Your task to perform on an android device: toggle translation in the chrome app Image 0: 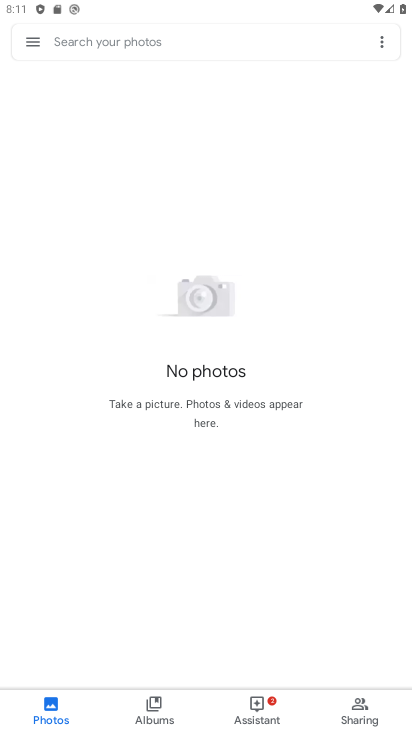
Step 0: press home button
Your task to perform on an android device: toggle translation in the chrome app Image 1: 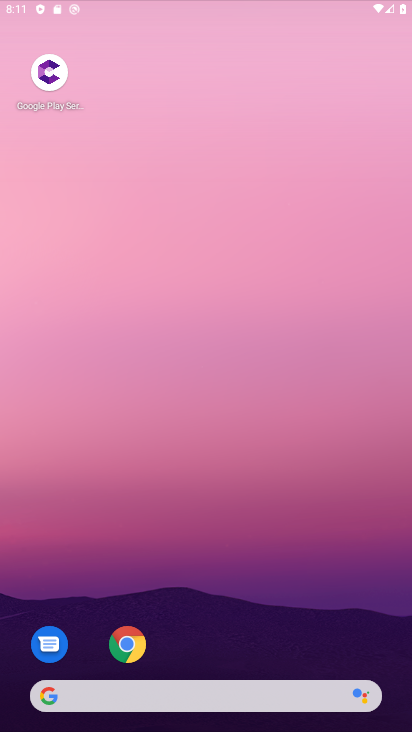
Step 1: drag from (204, 490) to (204, 219)
Your task to perform on an android device: toggle translation in the chrome app Image 2: 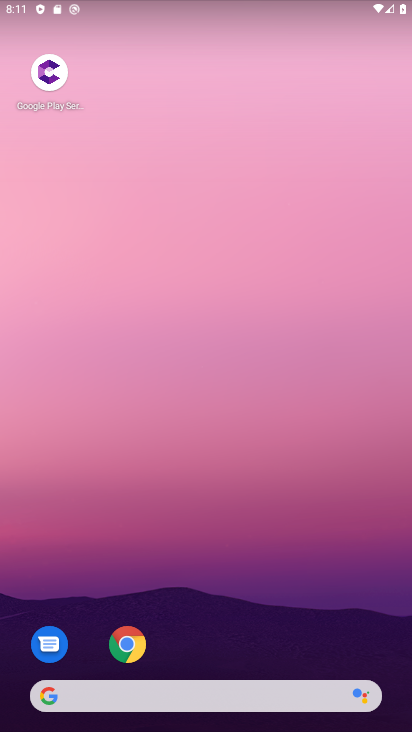
Step 2: click (132, 644)
Your task to perform on an android device: toggle translation in the chrome app Image 3: 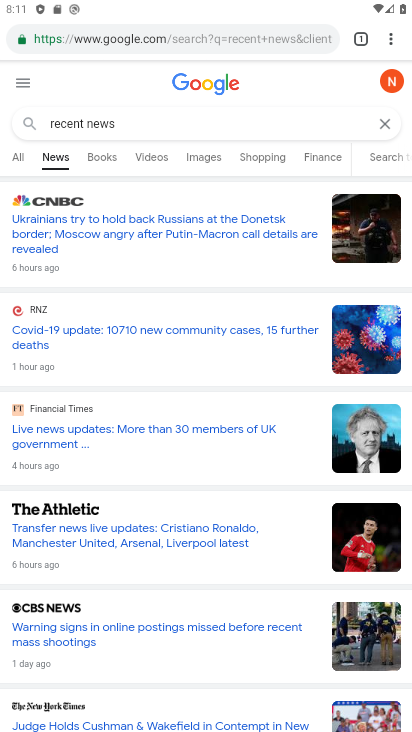
Step 3: click (387, 38)
Your task to perform on an android device: toggle translation in the chrome app Image 4: 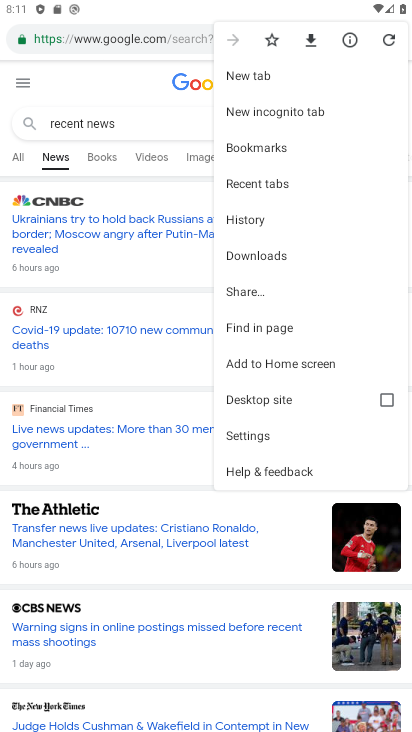
Step 4: click (275, 436)
Your task to perform on an android device: toggle translation in the chrome app Image 5: 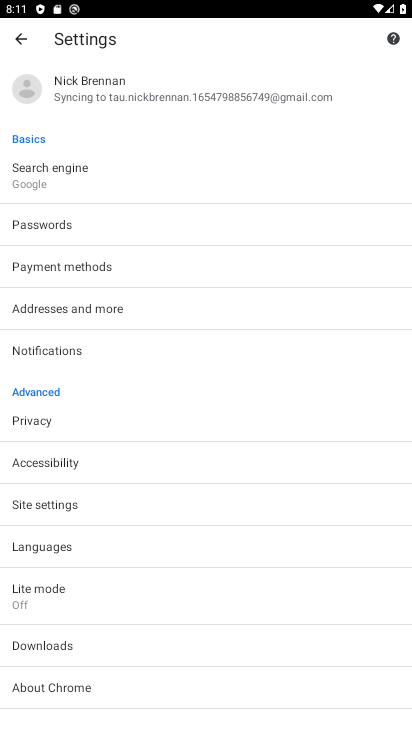
Step 5: drag from (149, 606) to (190, 218)
Your task to perform on an android device: toggle translation in the chrome app Image 6: 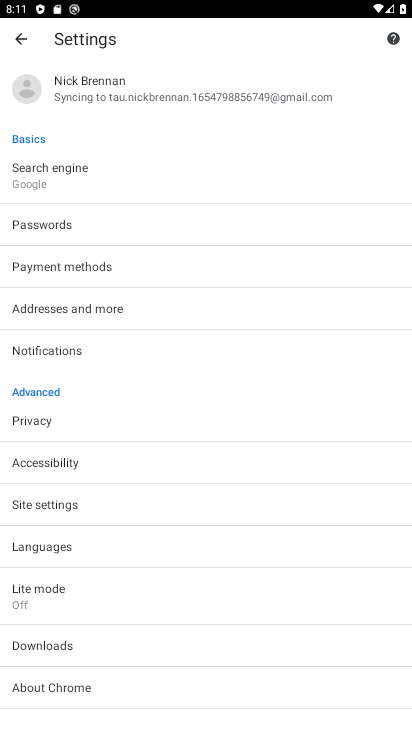
Step 6: drag from (145, 627) to (173, 264)
Your task to perform on an android device: toggle translation in the chrome app Image 7: 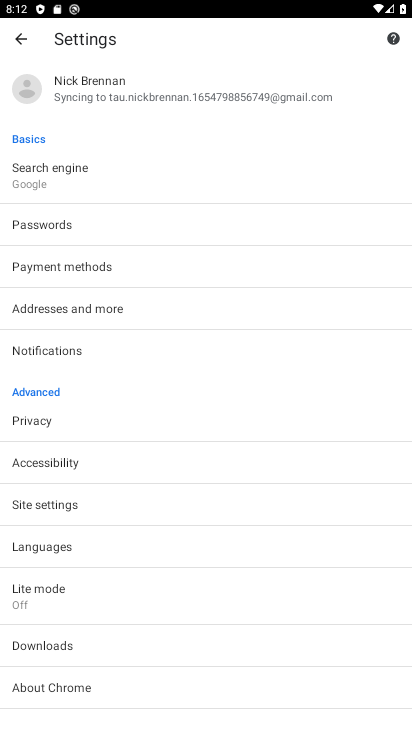
Step 7: click (146, 552)
Your task to perform on an android device: toggle translation in the chrome app Image 8: 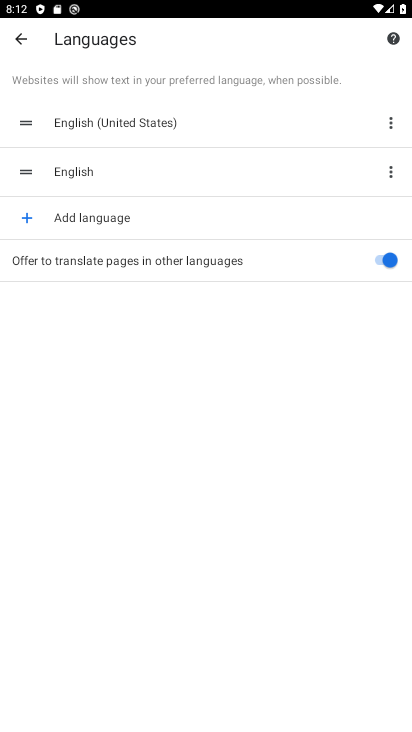
Step 8: click (366, 254)
Your task to perform on an android device: toggle translation in the chrome app Image 9: 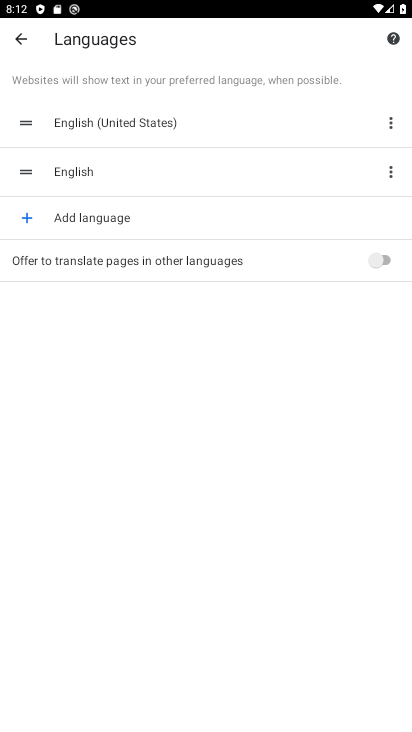
Step 9: task complete